Your task to perform on an android device: What's the weather going to be tomorrow? Image 0: 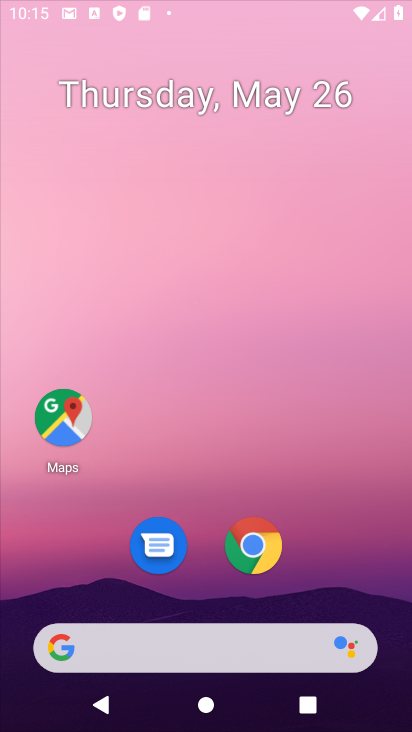
Step 0: press home button
Your task to perform on an android device: What's the weather going to be tomorrow? Image 1: 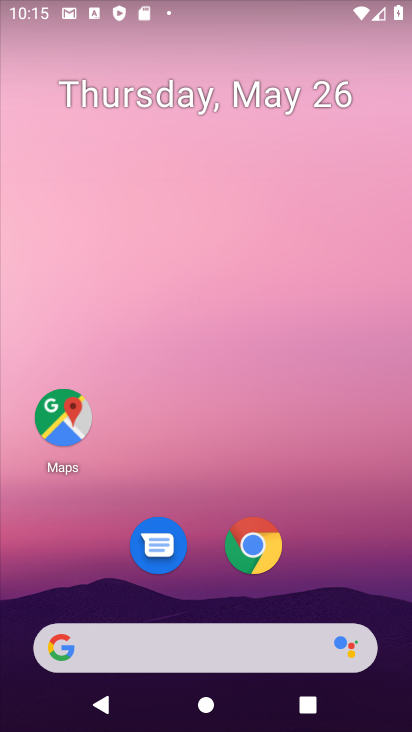
Step 1: click (55, 648)
Your task to perform on an android device: What's the weather going to be tomorrow? Image 2: 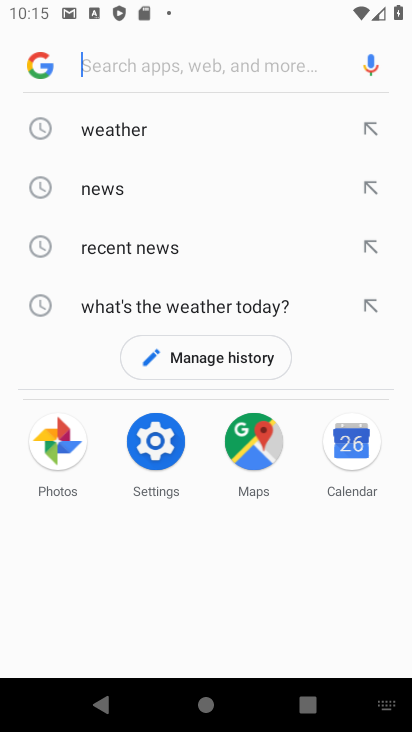
Step 2: type "weather going to be tomorrow?"
Your task to perform on an android device: What's the weather going to be tomorrow? Image 3: 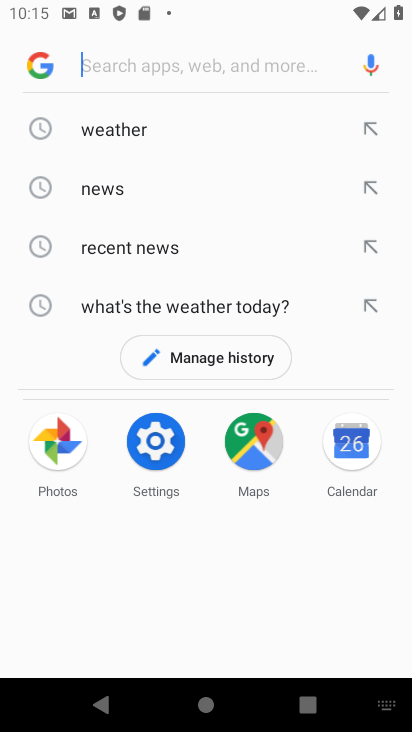
Step 3: click (178, 67)
Your task to perform on an android device: What's the weather going to be tomorrow? Image 4: 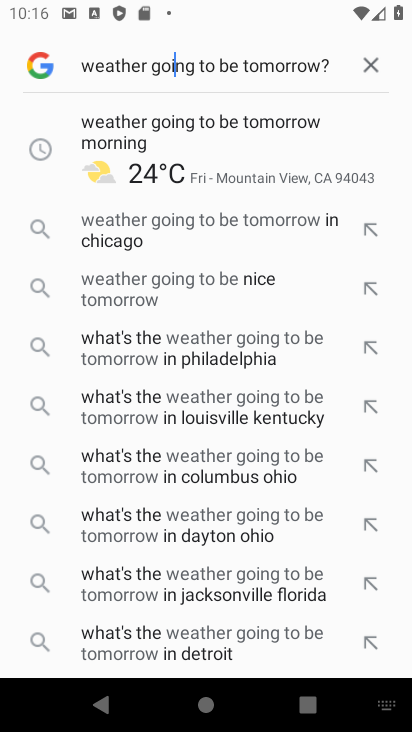
Step 4: click (187, 127)
Your task to perform on an android device: What's the weather going to be tomorrow? Image 5: 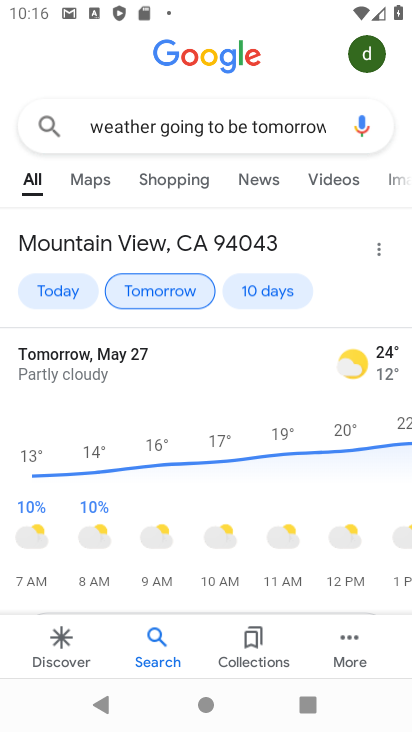
Step 5: task complete